Your task to perform on an android device: Go to wifi settings Image 0: 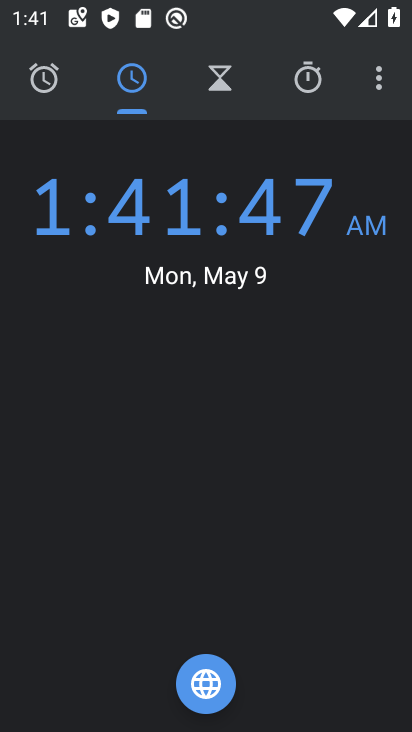
Step 0: press home button
Your task to perform on an android device: Go to wifi settings Image 1: 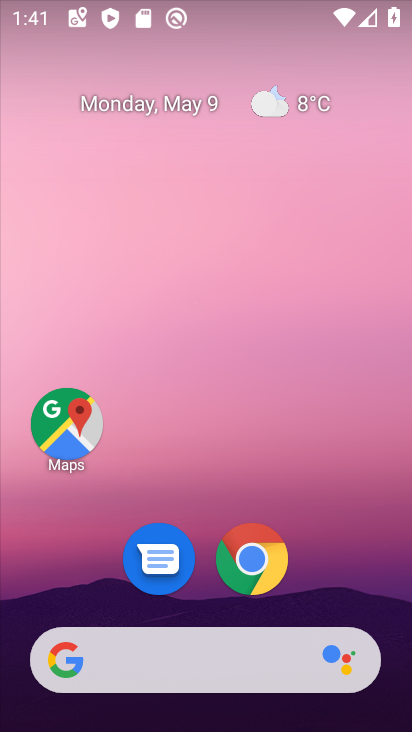
Step 1: drag from (321, 520) to (261, 29)
Your task to perform on an android device: Go to wifi settings Image 2: 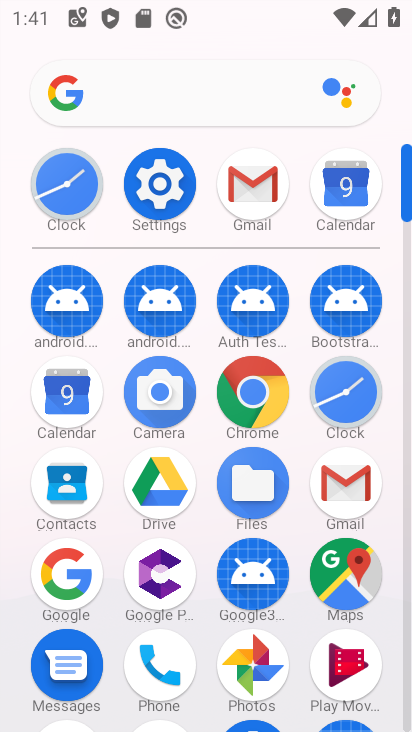
Step 2: click (157, 182)
Your task to perform on an android device: Go to wifi settings Image 3: 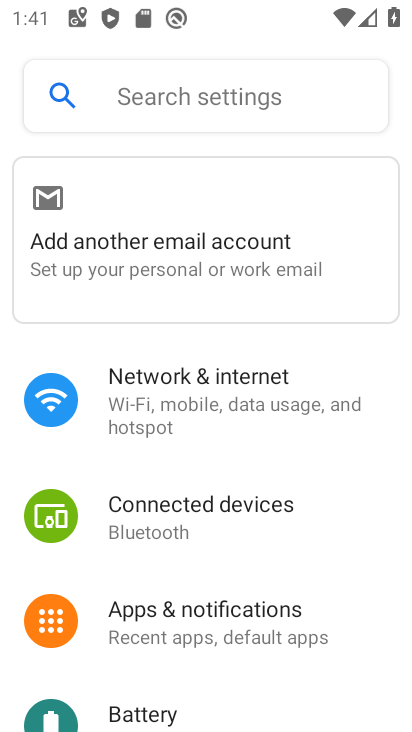
Step 3: click (194, 369)
Your task to perform on an android device: Go to wifi settings Image 4: 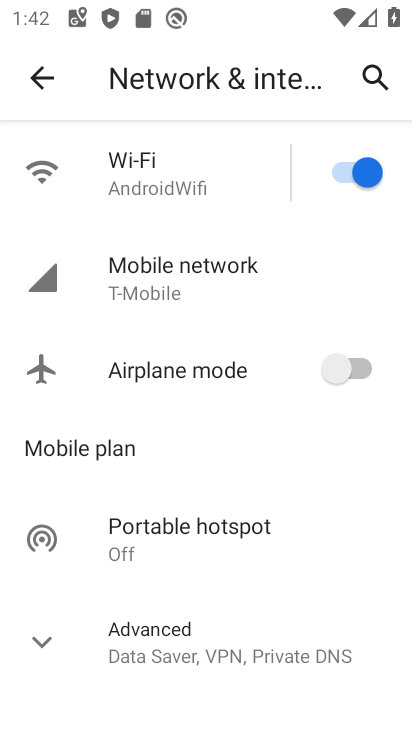
Step 4: task complete